Your task to perform on an android device: Clear the shopping cart on newegg. Search for razer huntsman on newegg, select the first entry, add it to the cart, then select checkout. Image 0: 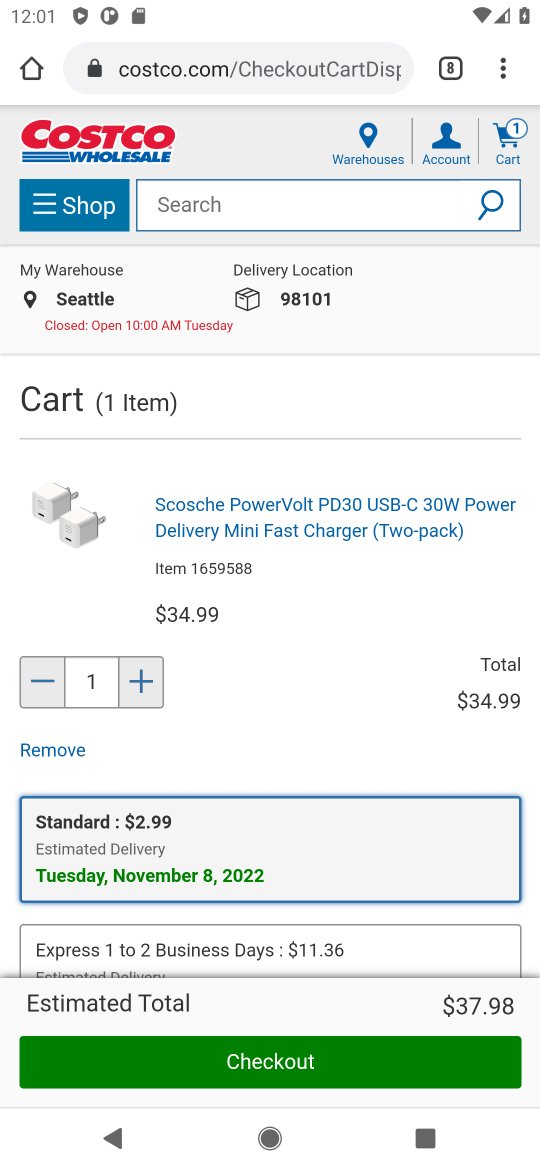
Step 0: press home button
Your task to perform on an android device: Clear the shopping cart on newegg. Search for razer huntsman on newegg, select the first entry, add it to the cart, then select checkout. Image 1: 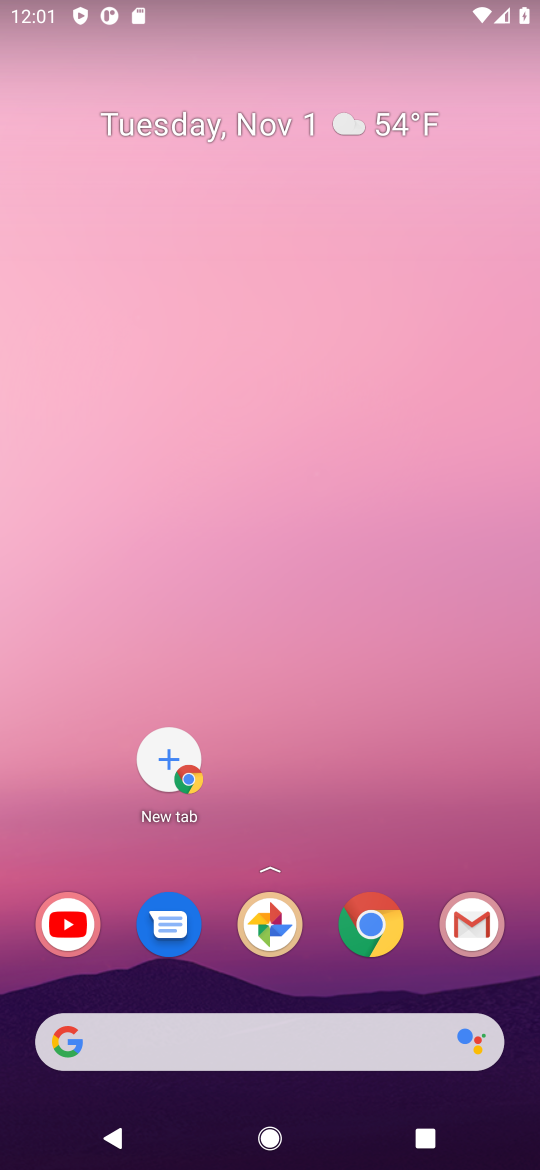
Step 1: click (380, 936)
Your task to perform on an android device: Clear the shopping cart on newegg. Search for razer huntsman on newegg, select the first entry, add it to the cart, then select checkout. Image 2: 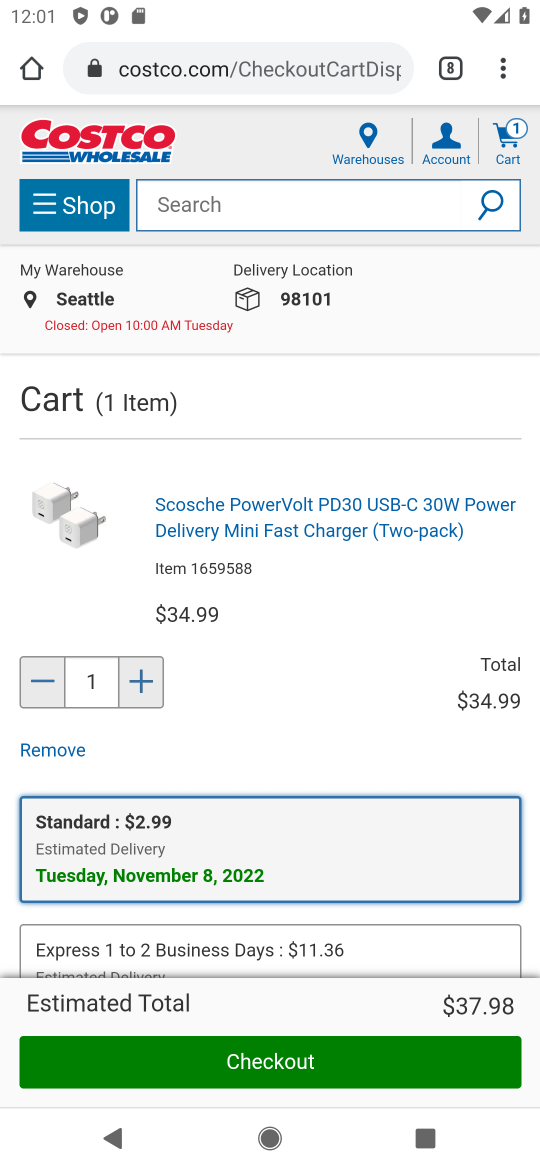
Step 2: click (167, 48)
Your task to perform on an android device: Clear the shopping cart on newegg. Search for razer huntsman on newegg, select the first entry, add it to the cart, then select checkout. Image 3: 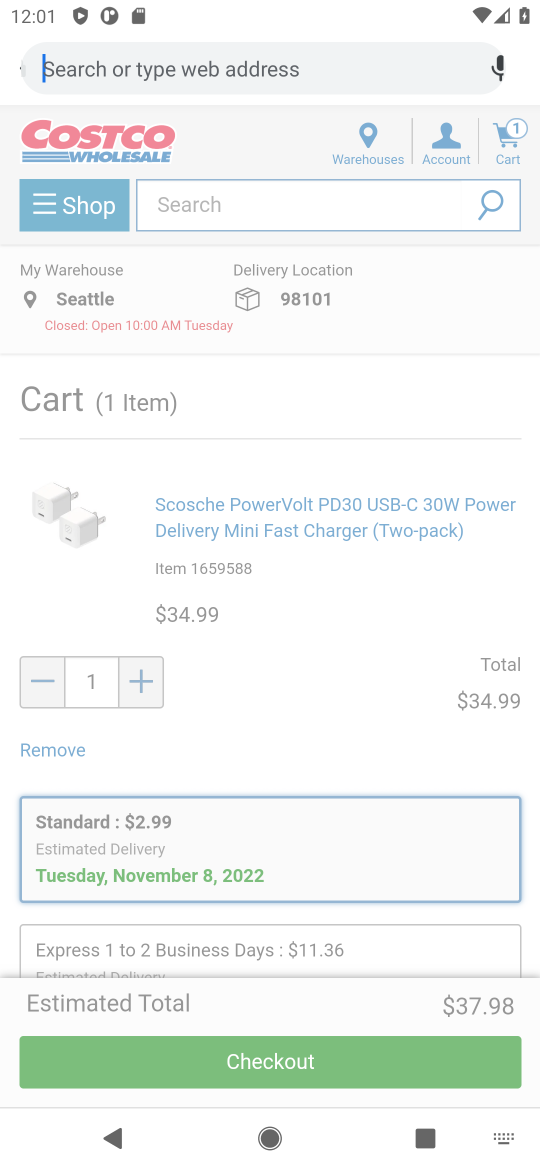
Step 3: click (168, 59)
Your task to perform on an android device: Clear the shopping cart on newegg. Search for razer huntsman on newegg, select the first entry, add it to the cart, then select checkout. Image 4: 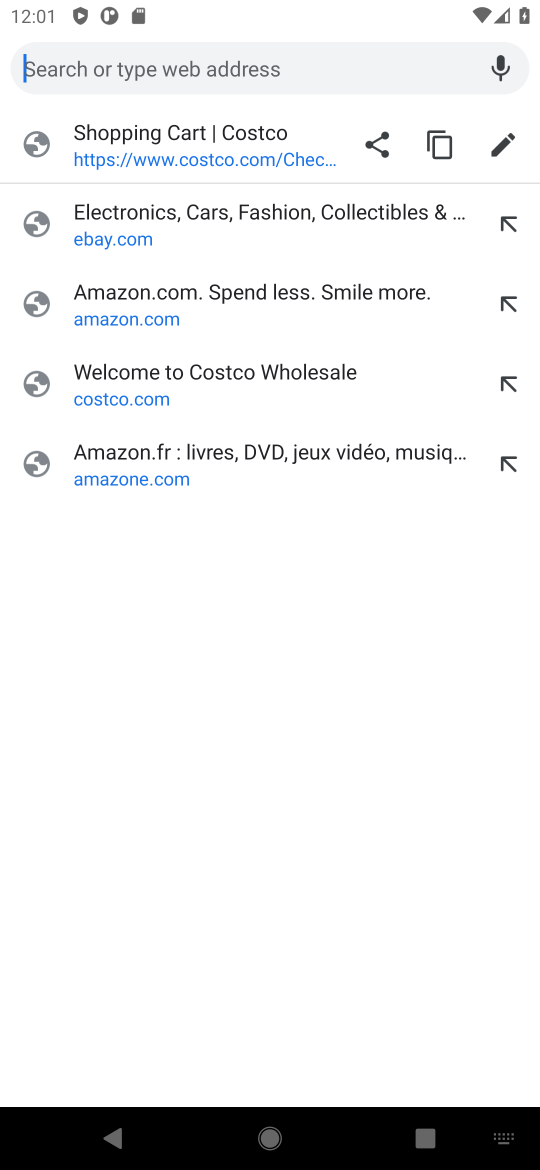
Step 4: type "newegg"
Your task to perform on an android device: Clear the shopping cart on newegg. Search for razer huntsman on newegg, select the first entry, add it to the cart, then select checkout. Image 5: 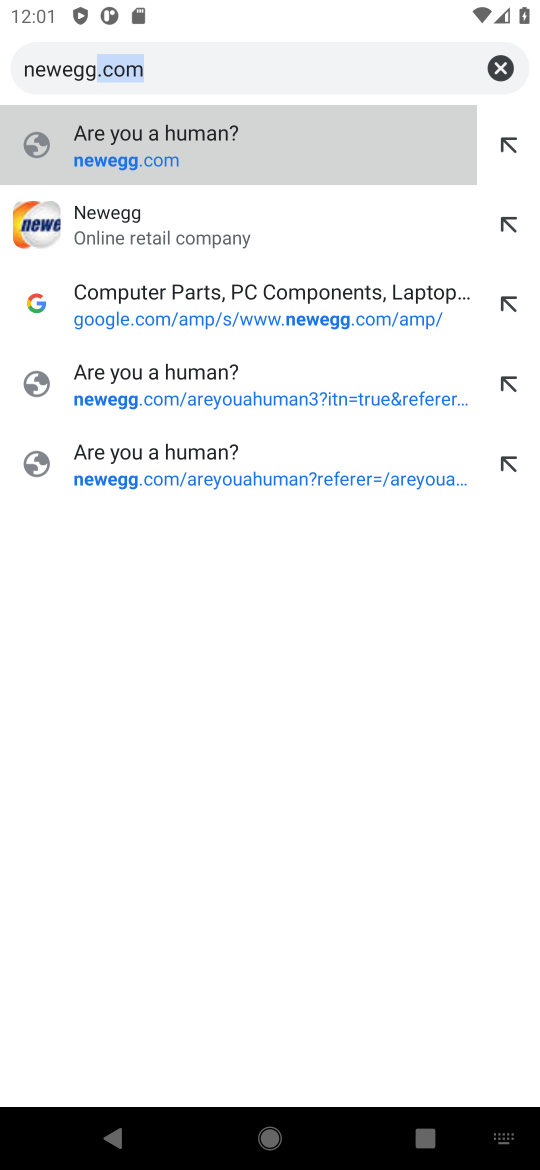
Step 5: click (135, 215)
Your task to perform on an android device: Clear the shopping cart on newegg. Search for razer huntsman on newegg, select the first entry, add it to the cart, then select checkout. Image 6: 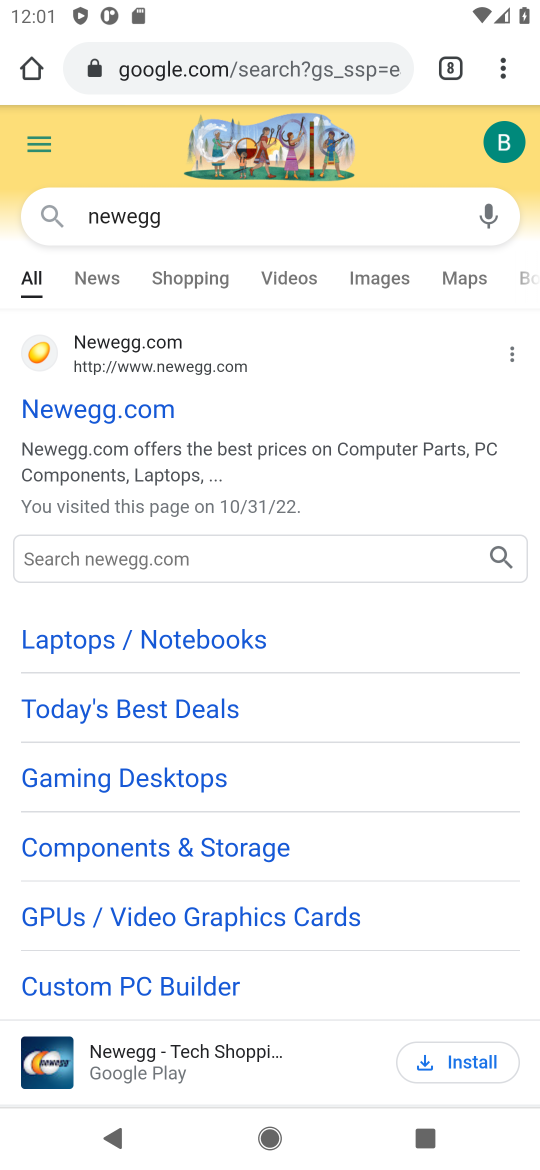
Step 6: drag from (251, 892) to (286, 165)
Your task to perform on an android device: Clear the shopping cart on newegg. Search for razer huntsman on newegg, select the first entry, add it to the cart, then select checkout. Image 7: 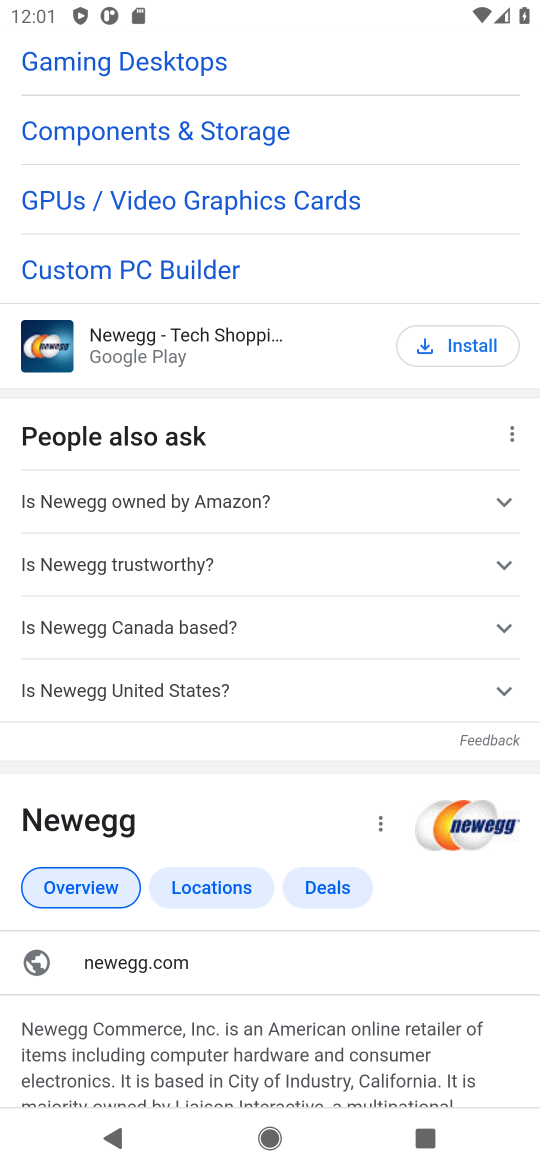
Step 7: click (128, 330)
Your task to perform on an android device: Clear the shopping cart on newegg. Search for razer huntsman on newegg, select the first entry, add it to the cart, then select checkout. Image 8: 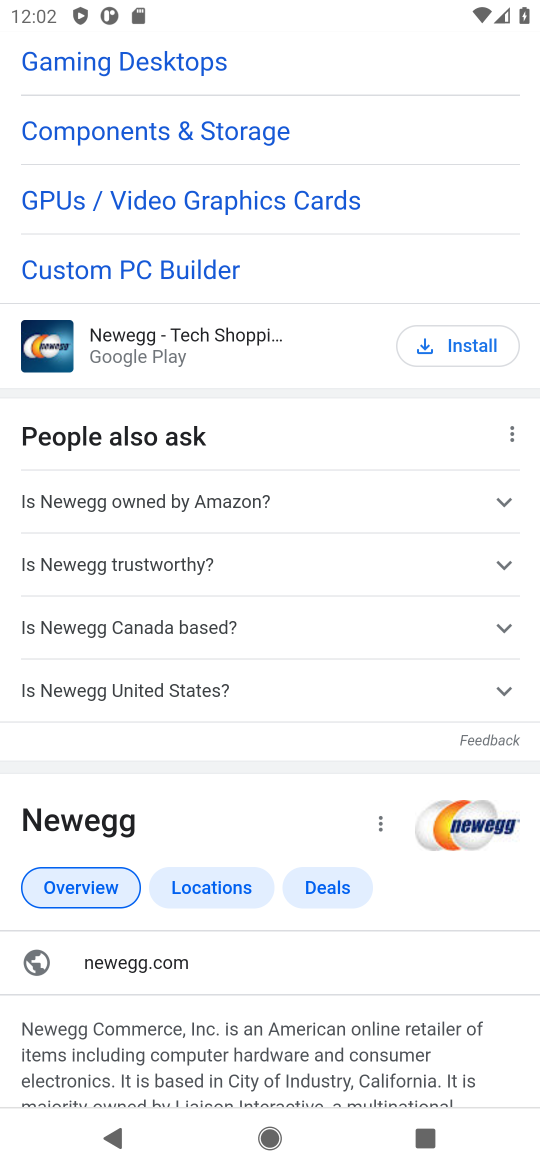
Step 8: drag from (243, 286) to (253, 783)
Your task to perform on an android device: Clear the shopping cart on newegg. Search for razer huntsman on newegg, select the first entry, add it to the cart, then select checkout. Image 9: 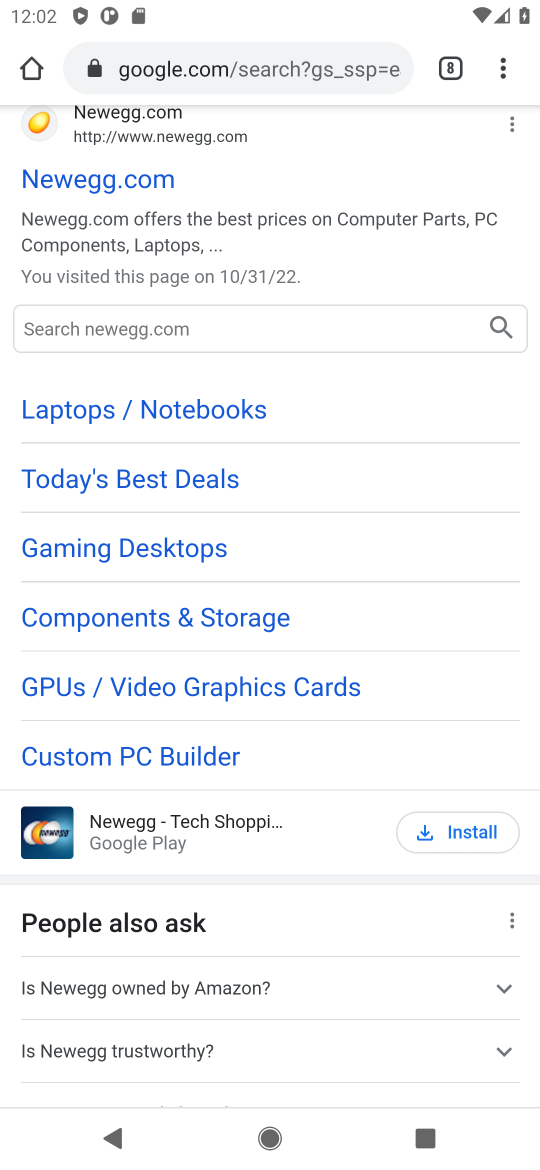
Step 9: click (108, 184)
Your task to perform on an android device: Clear the shopping cart on newegg. Search for razer huntsman on newegg, select the first entry, add it to the cart, then select checkout. Image 10: 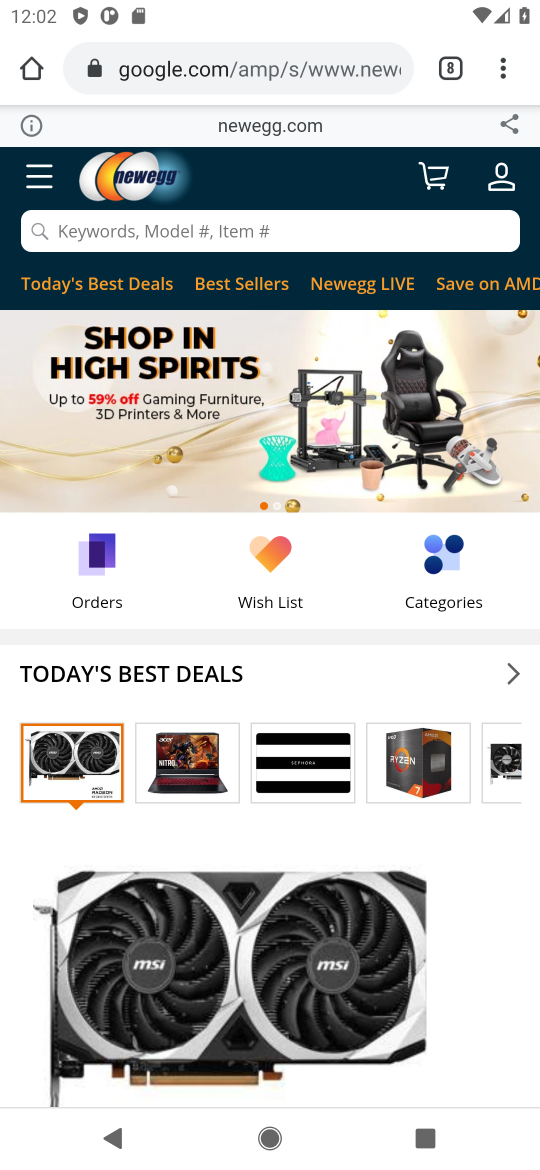
Step 10: click (147, 225)
Your task to perform on an android device: Clear the shopping cart on newegg. Search for razer huntsman on newegg, select the first entry, add it to the cart, then select checkout. Image 11: 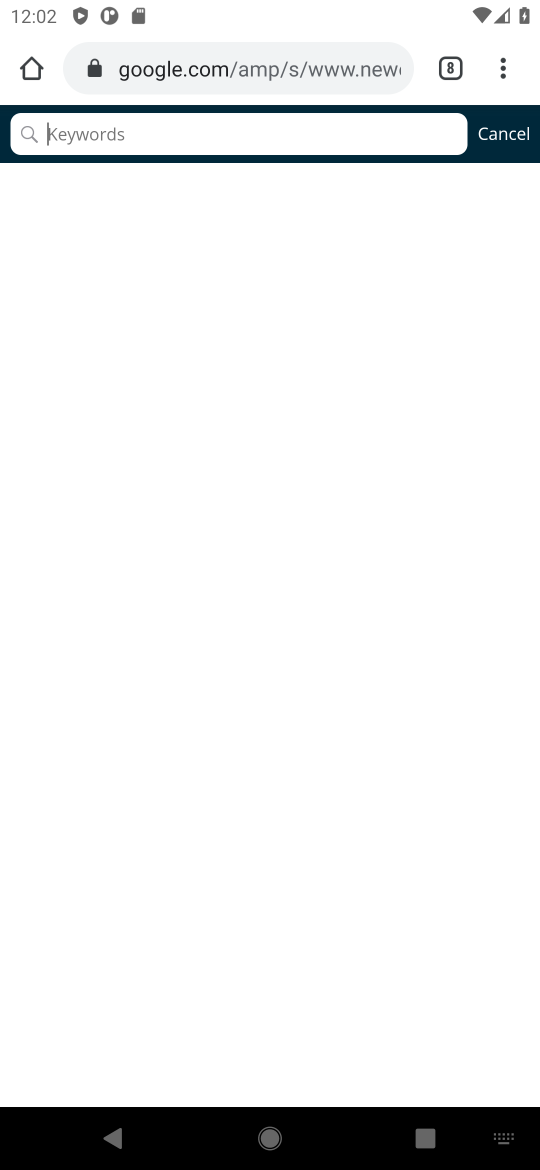
Step 11: type "razer huntsman"
Your task to perform on an android device: Clear the shopping cart on newegg. Search for razer huntsman on newegg, select the first entry, add it to the cart, then select checkout. Image 12: 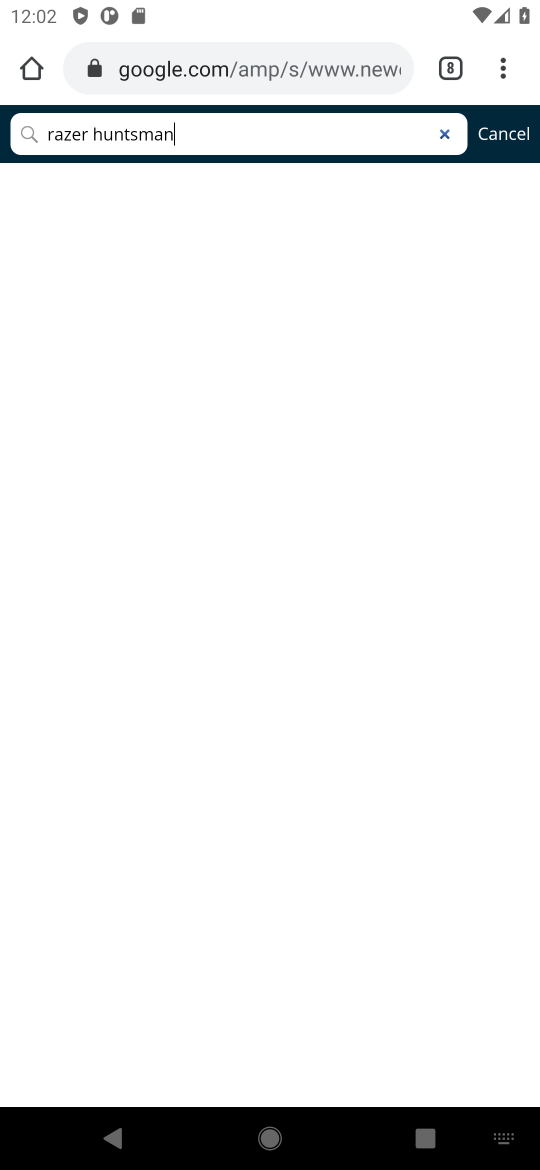
Step 12: type ""
Your task to perform on an android device: Clear the shopping cart on newegg. Search for razer huntsman on newegg, select the first entry, add it to the cart, then select checkout. Image 13: 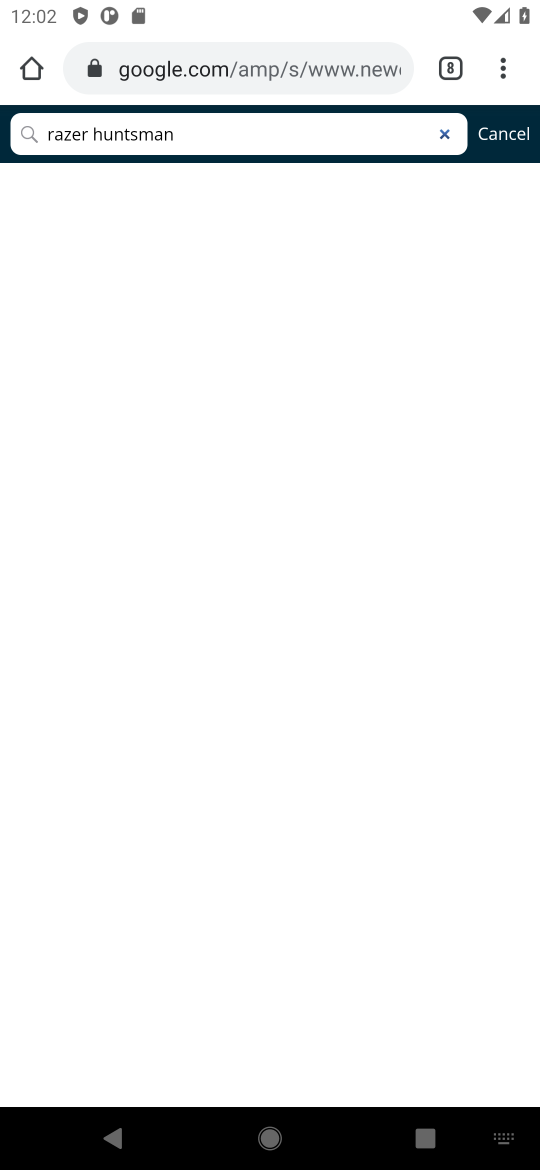
Step 13: click (33, 126)
Your task to perform on an android device: Clear the shopping cart on newegg. Search for razer huntsman on newegg, select the first entry, add it to the cart, then select checkout. Image 14: 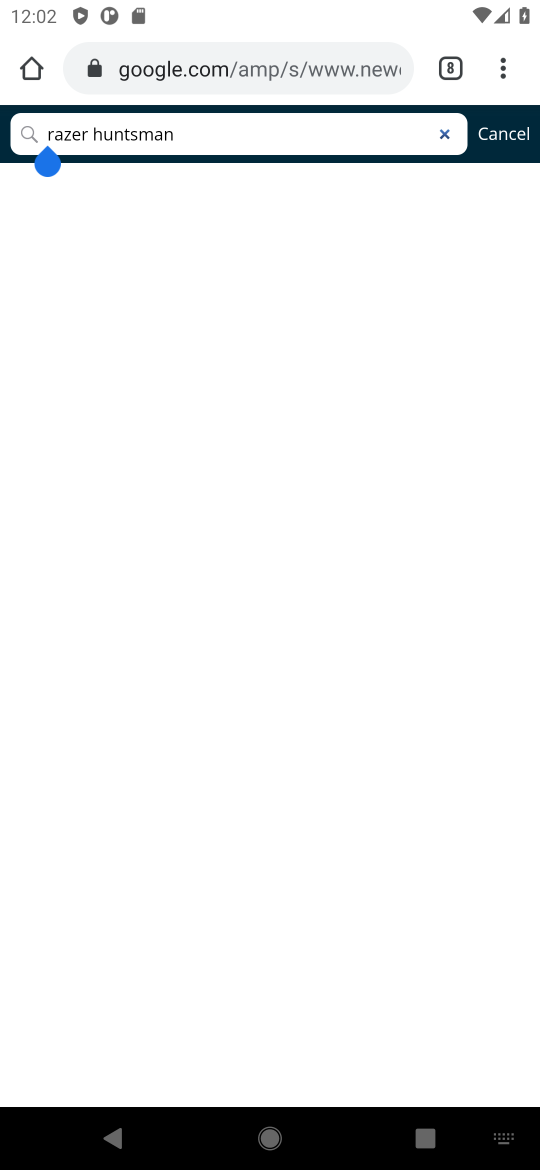
Step 14: click (238, 132)
Your task to perform on an android device: Clear the shopping cart on newegg. Search for razer huntsman on newegg, select the first entry, add it to the cart, then select checkout. Image 15: 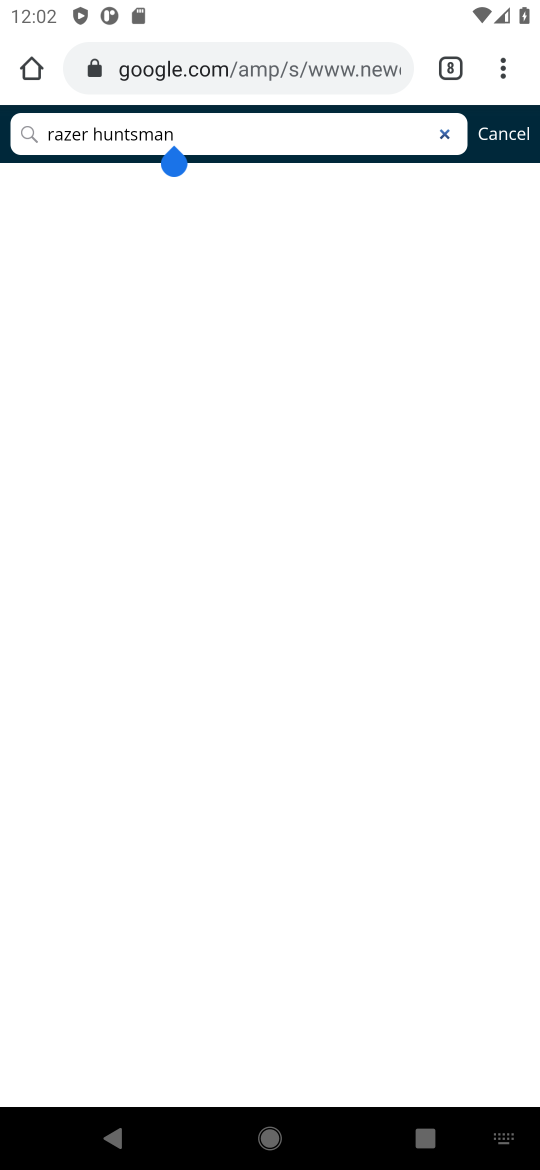
Step 15: press back button
Your task to perform on an android device: Clear the shopping cart on newegg. Search for razer huntsman on newegg, select the first entry, add it to the cart, then select checkout. Image 16: 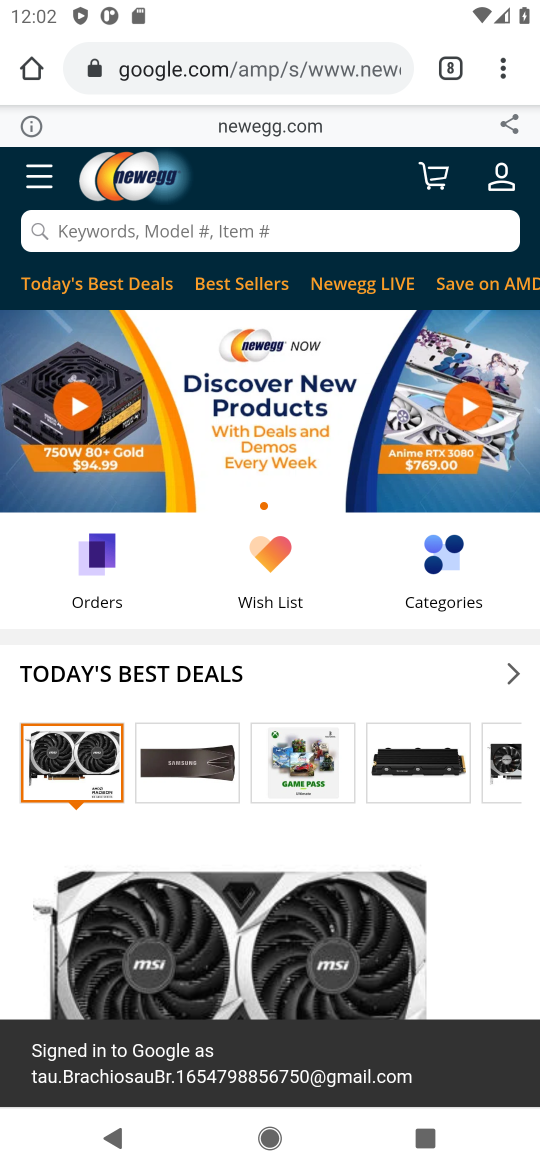
Step 16: click (118, 227)
Your task to perform on an android device: Clear the shopping cart on newegg. Search for razer huntsman on newegg, select the first entry, add it to the cart, then select checkout. Image 17: 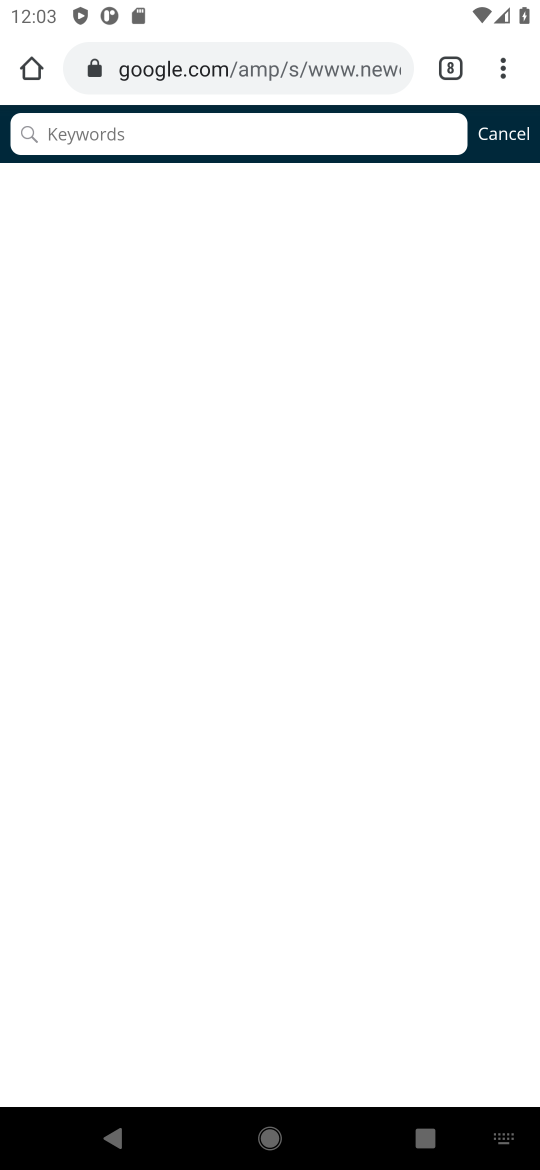
Step 17: type "razer huntsman"
Your task to perform on an android device: Clear the shopping cart on newegg. Search for razer huntsman on newegg, select the first entry, add it to the cart, then select checkout. Image 18: 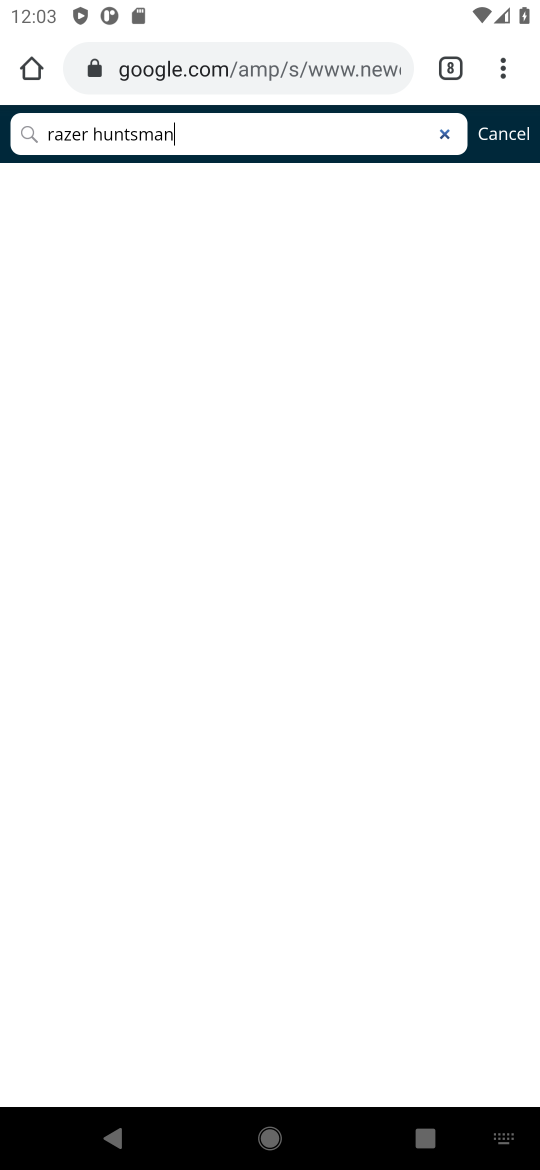
Step 18: type ""
Your task to perform on an android device: Clear the shopping cart on newegg. Search for razer huntsman on newegg, select the first entry, add it to the cart, then select checkout. Image 19: 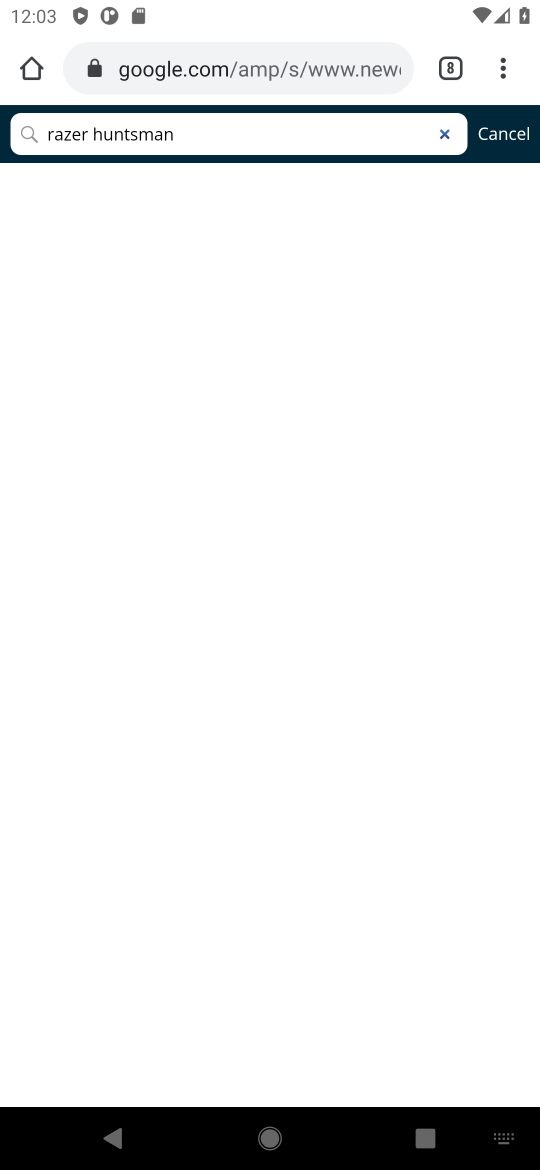
Step 19: click (448, 131)
Your task to perform on an android device: Clear the shopping cart on newegg. Search for razer huntsman on newegg, select the first entry, add it to the cart, then select checkout. Image 20: 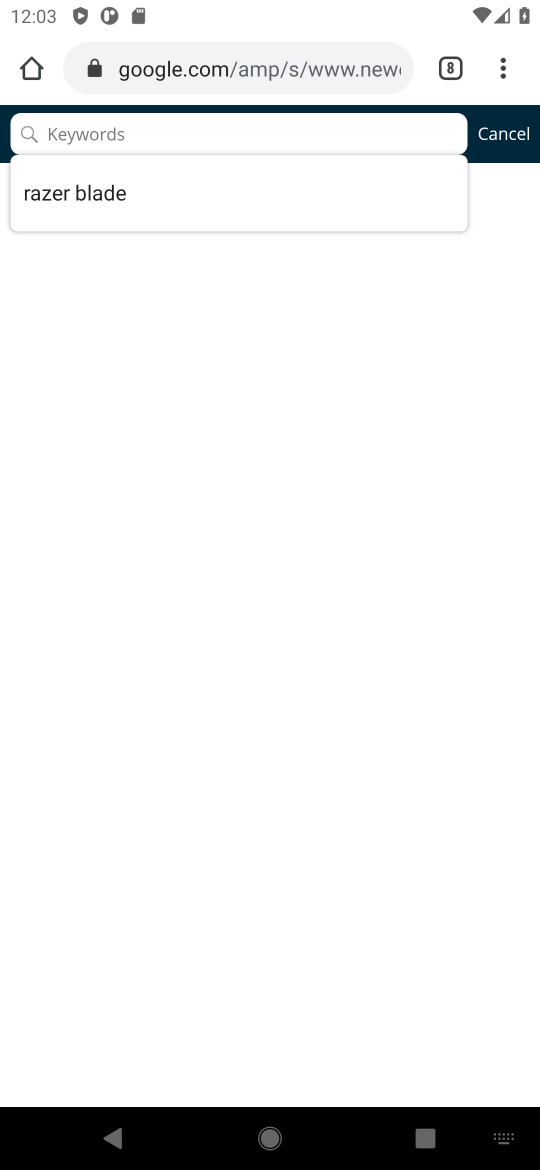
Step 20: press back button
Your task to perform on an android device: Clear the shopping cart on newegg. Search for razer huntsman on newegg, select the first entry, add it to the cart, then select checkout. Image 21: 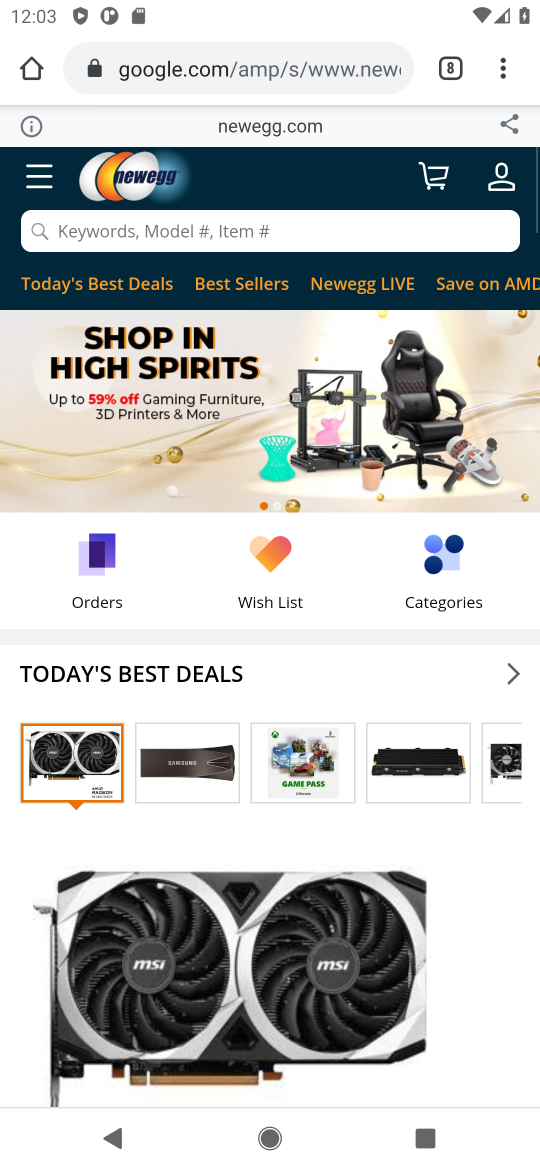
Step 21: drag from (207, 841) to (266, 260)
Your task to perform on an android device: Clear the shopping cart on newegg. Search for razer huntsman on newegg, select the first entry, add it to the cart, then select checkout. Image 22: 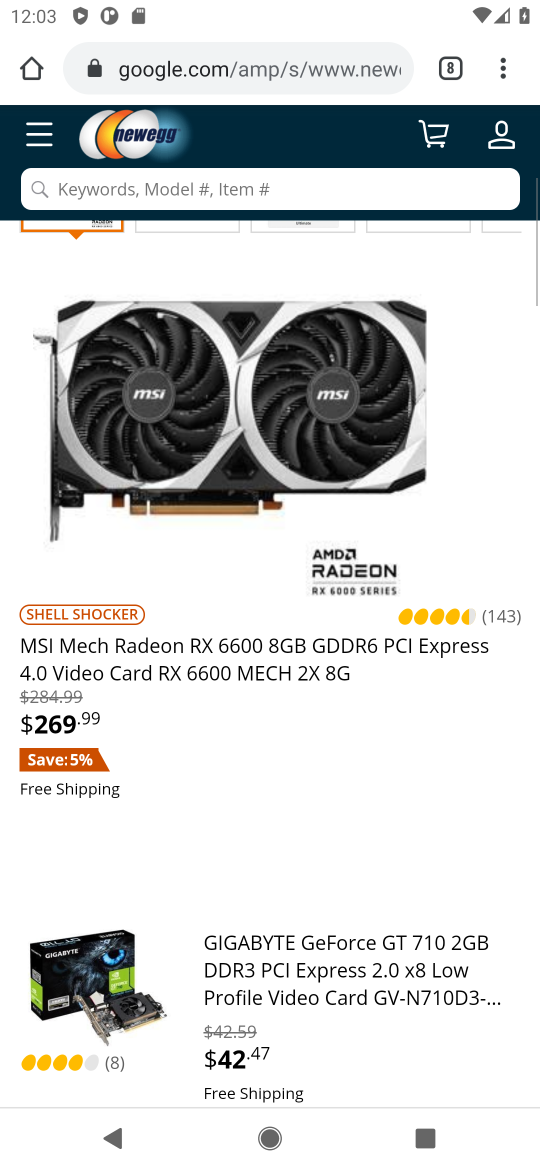
Step 22: drag from (159, 890) to (218, 508)
Your task to perform on an android device: Clear the shopping cart on newegg. Search for razer huntsman on newegg, select the first entry, add it to the cart, then select checkout. Image 23: 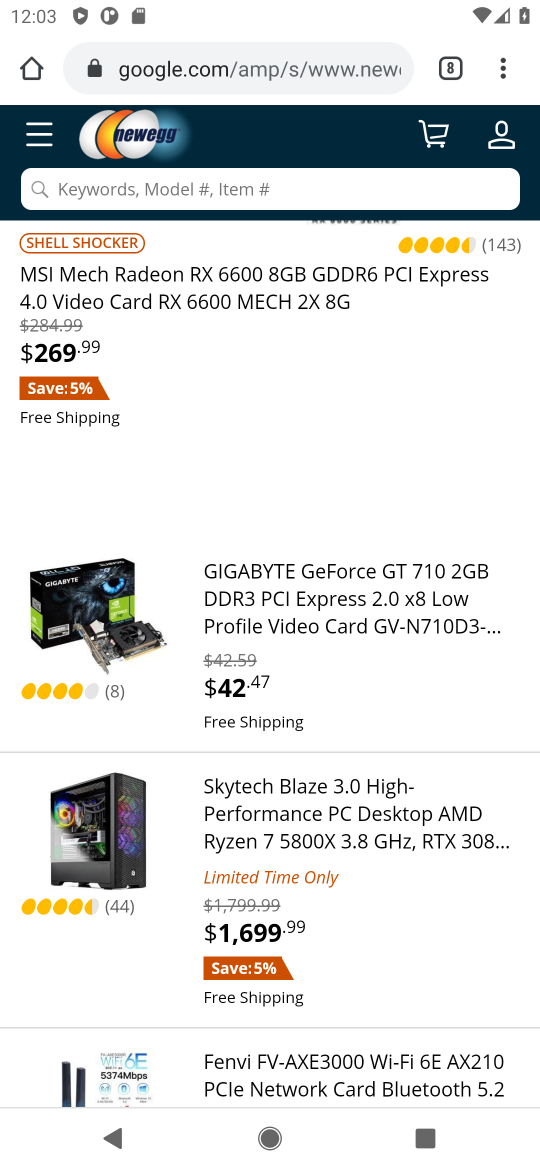
Step 23: drag from (311, 1001) to (331, 665)
Your task to perform on an android device: Clear the shopping cart on newegg. Search for razer huntsman on newegg, select the first entry, add it to the cart, then select checkout. Image 24: 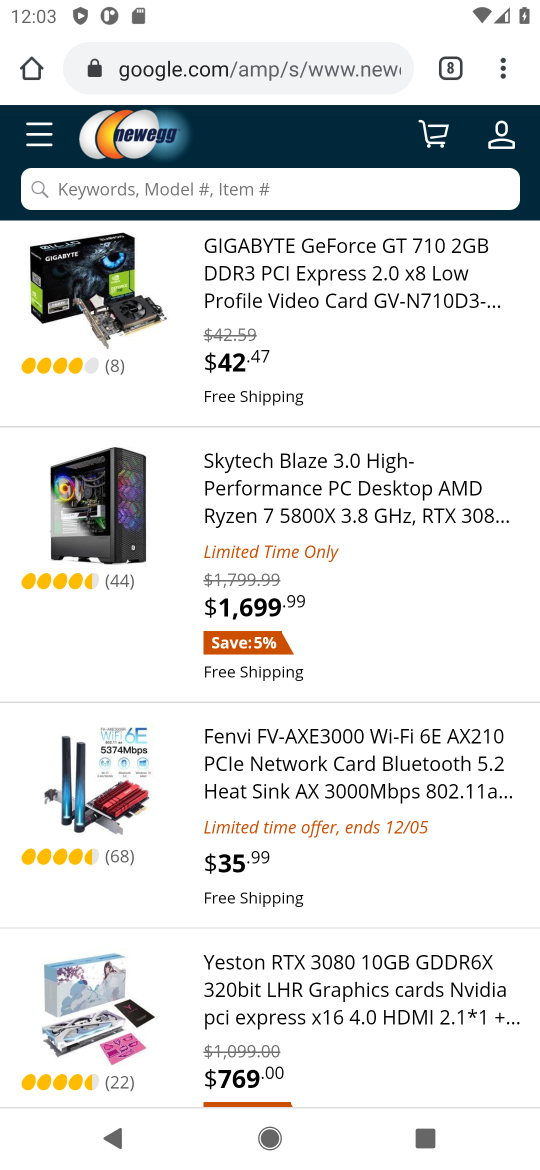
Step 24: press back button
Your task to perform on an android device: Clear the shopping cart on newegg. Search for razer huntsman on newegg, select the first entry, add it to the cart, then select checkout. Image 25: 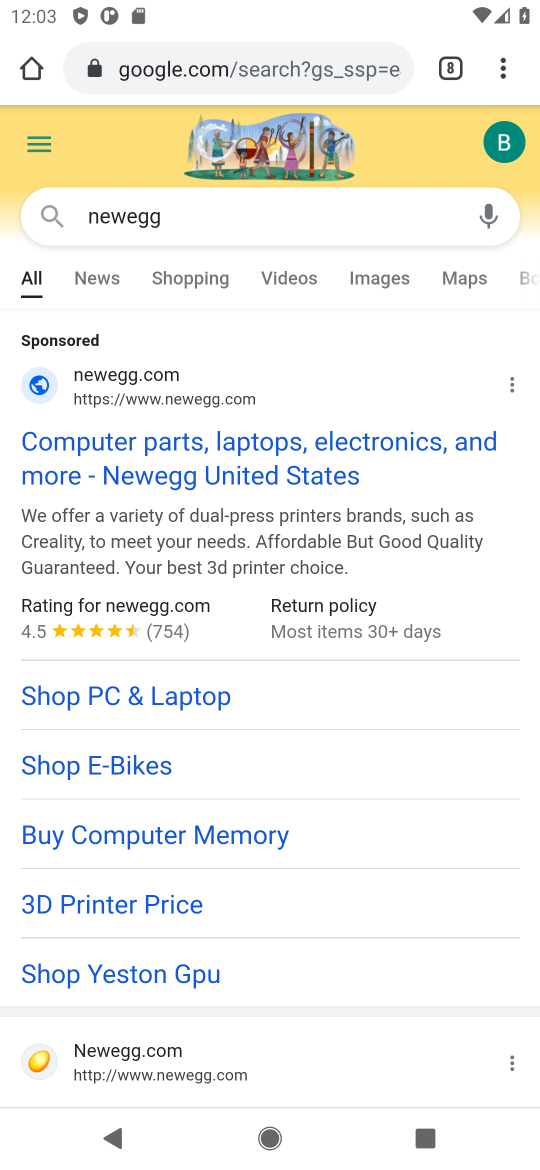
Step 25: drag from (396, 850) to (450, 241)
Your task to perform on an android device: Clear the shopping cart on newegg. Search for razer huntsman on newegg, select the first entry, add it to the cart, then select checkout. Image 26: 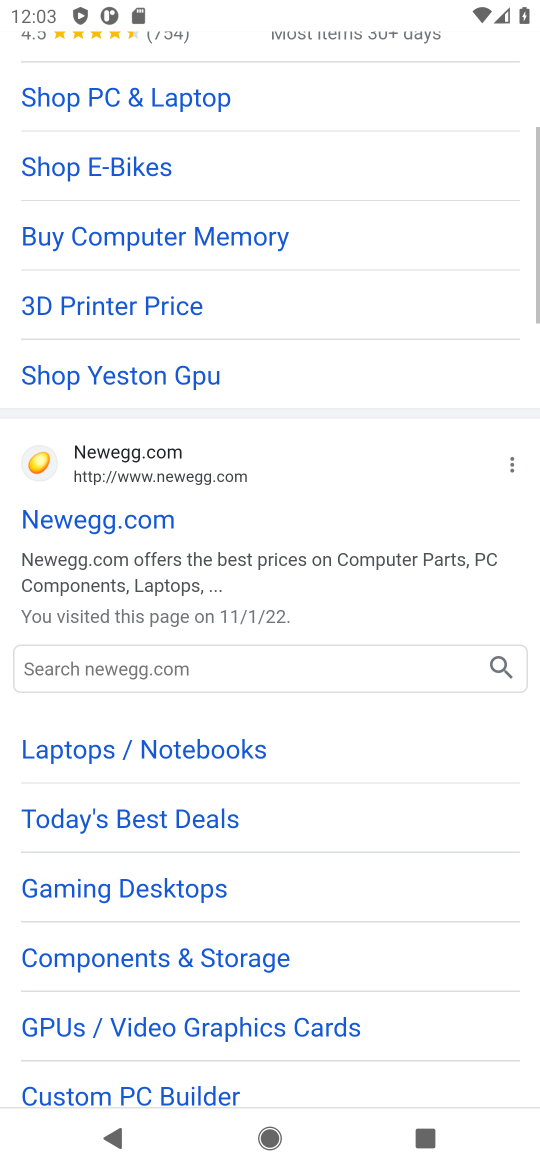
Step 26: drag from (279, 856) to (370, 342)
Your task to perform on an android device: Clear the shopping cart on newegg. Search for razer huntsman on newegg, select the first entry, add it to the cart, then select checkout. Image 27: 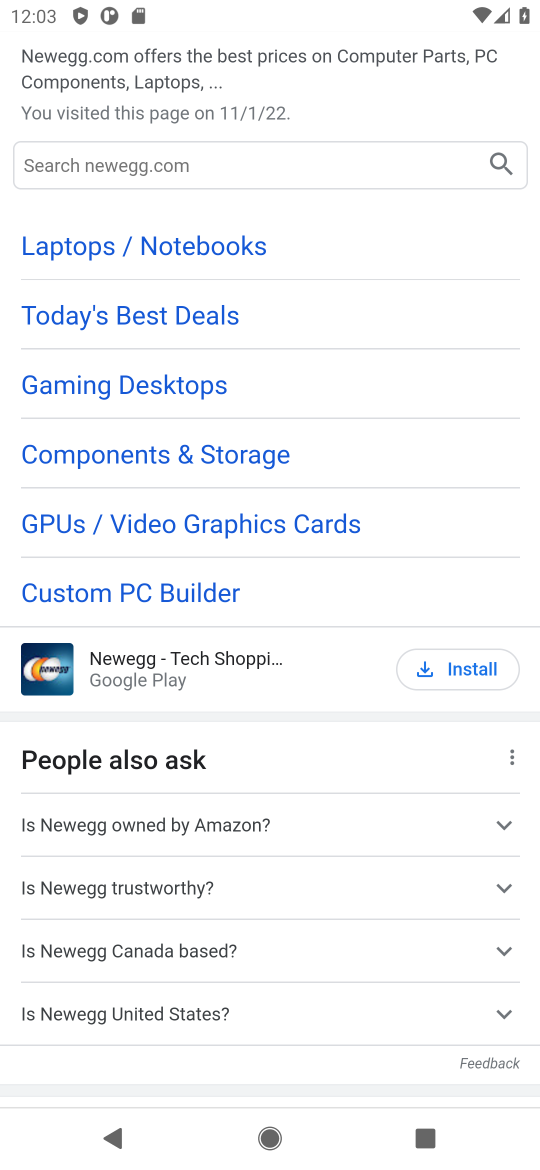
Step 27: click (166, 237)
Your task to perform on an android device: Clear the shopping cart on newegg. Search for razer huntsman on newegg, select the first entry, add it to the cart, then select checkout. Image 28: 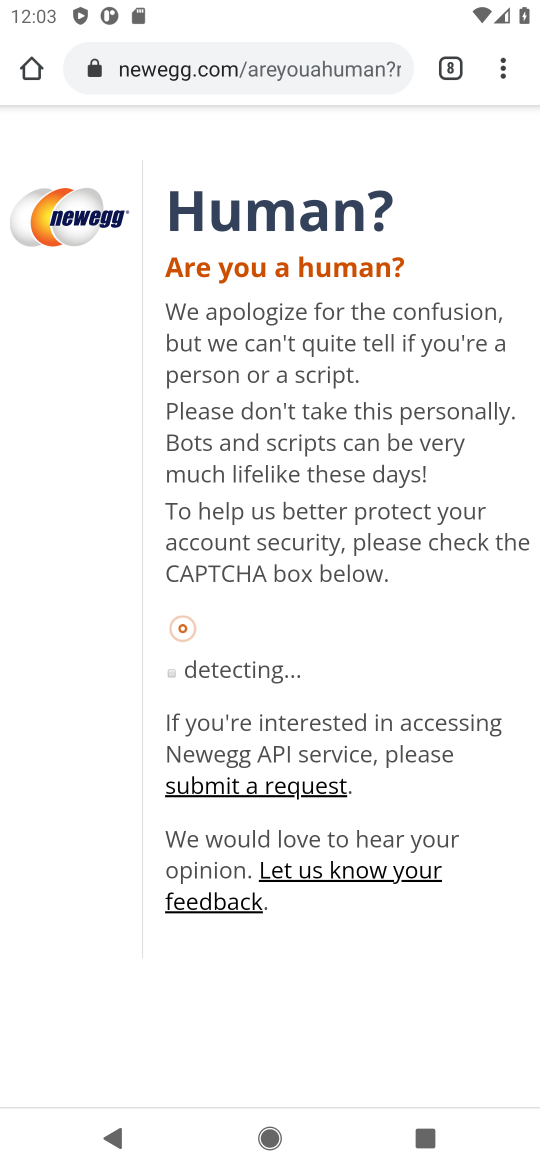
Step 28: press back button
Your task to perform on an android device: Clear the shopping cart on newegg. Search for razer huntsman on newegg, select the first entry, add it to the cart, then select checkout. Image 29: 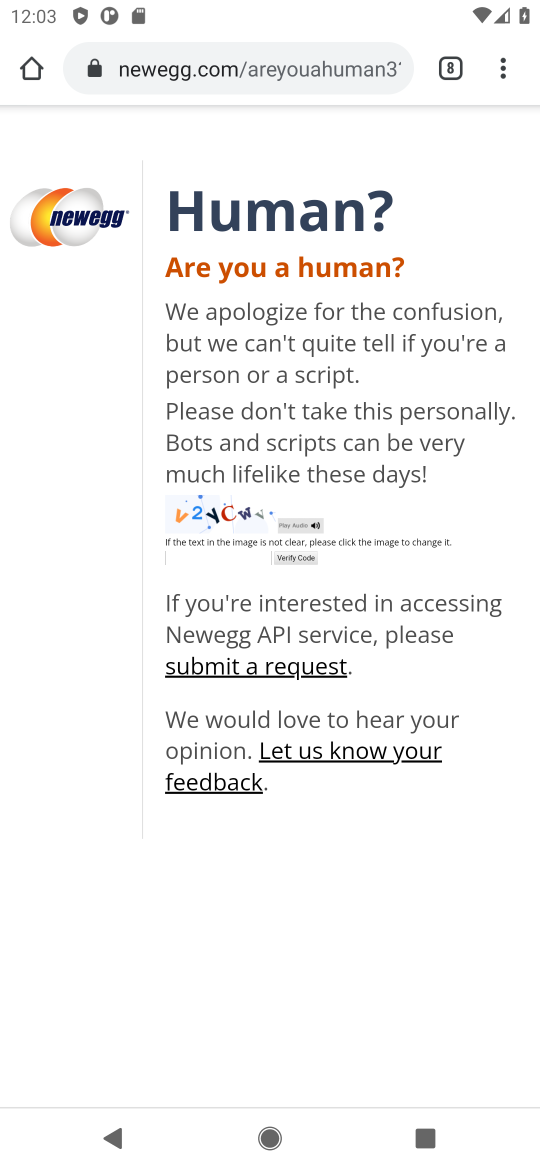
Step 29: drag from (246, 825) to (322, 353)
Your task to perform on an android device: Clear the shopping cart on newegg. Search for razer huntsman on newegg, select the first entry, add it to the cart, then select checkout. Image 30: 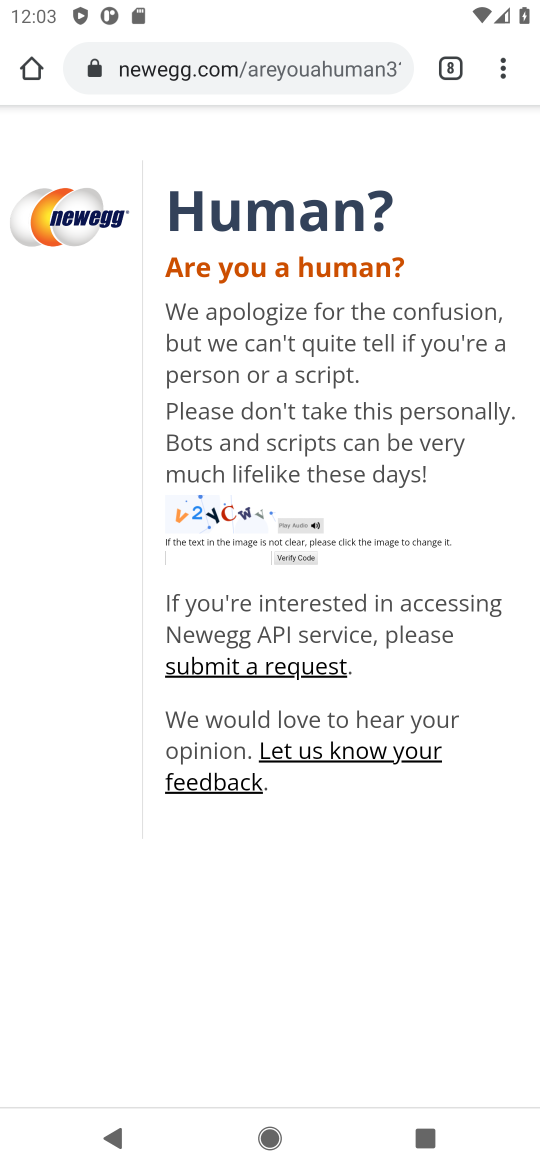
Step 30: press back button
Your task to perform on an android device: Clear the shopping cart on newegg. Search for razer huntsman on newegg, select the first entry, add it to the cart, then select checkout. Image 31: 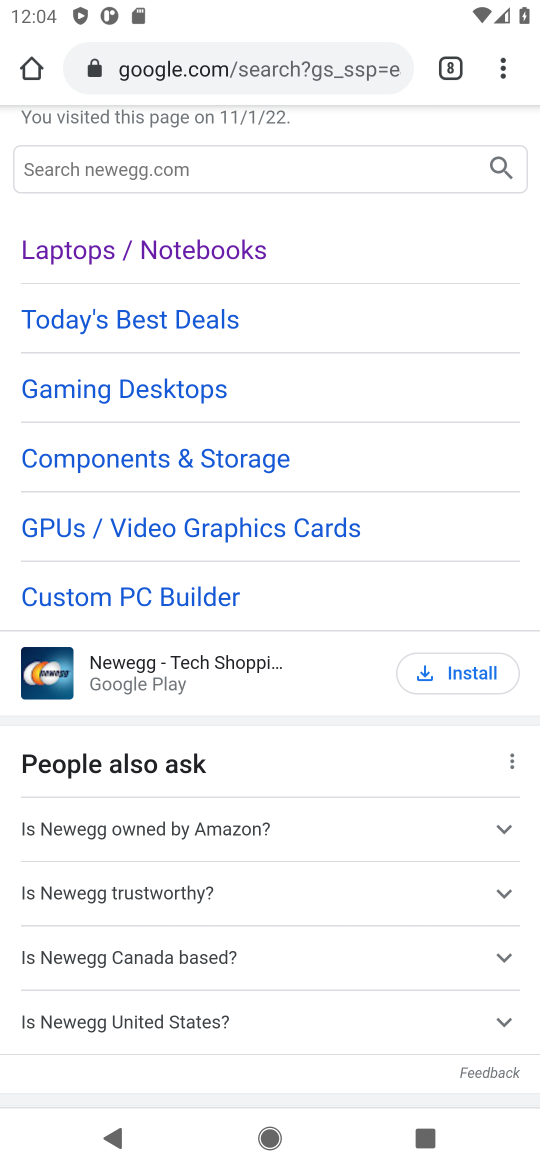
Step 31: click (170, 163)
Your task to perform on an android device: Clear the shopping cart on newegg. Search for razer huntsman on newegg, select the first entry, add it to the cart, then select checkout. Image 32: 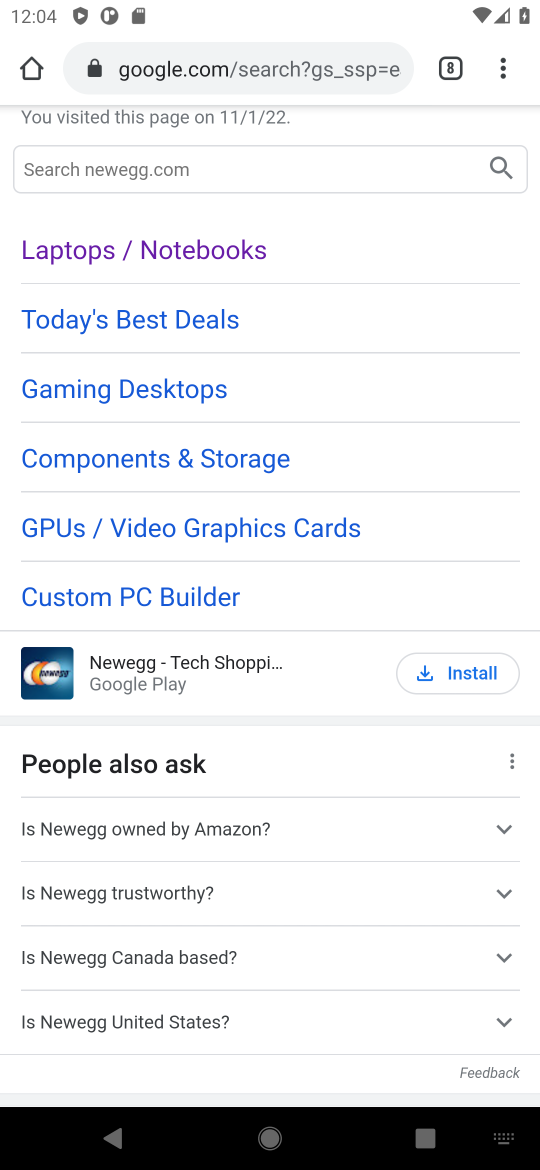
Step 32: type "razer huntsman"
Your task to perform on an android device: Clear the shopping cart on newegg. Search for razer huntsman on newegg, select the first entry, add it to the cart, then select checkout. Image 33: 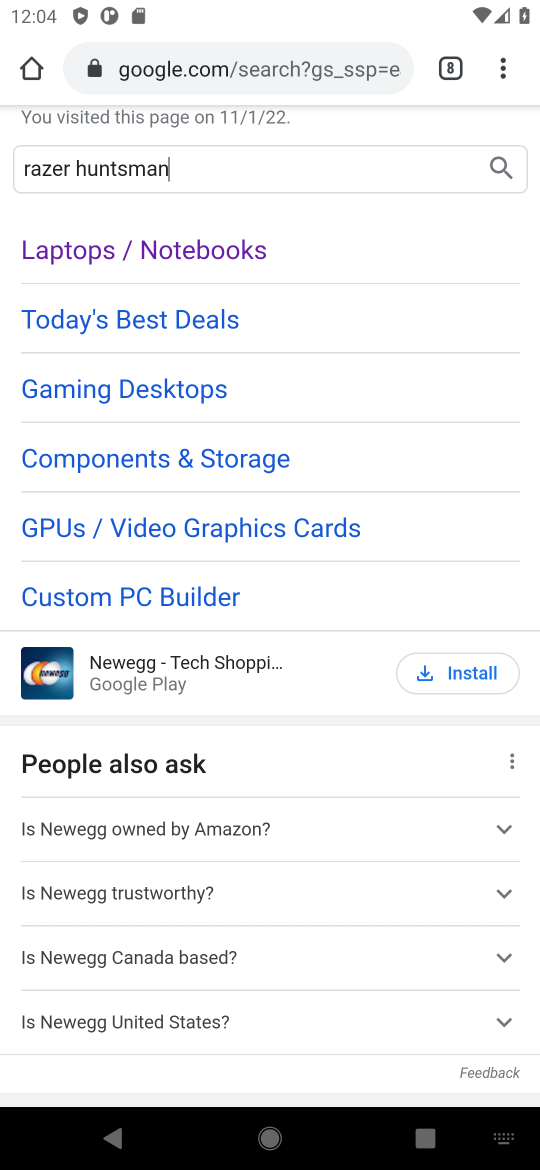
Step 33: type ""
Your task to perform on an android device: Clear the shopping cart on newegg. Search for razer huntsman on newegg, select the first entry, add it to the cart, then select checkout. Image 34: 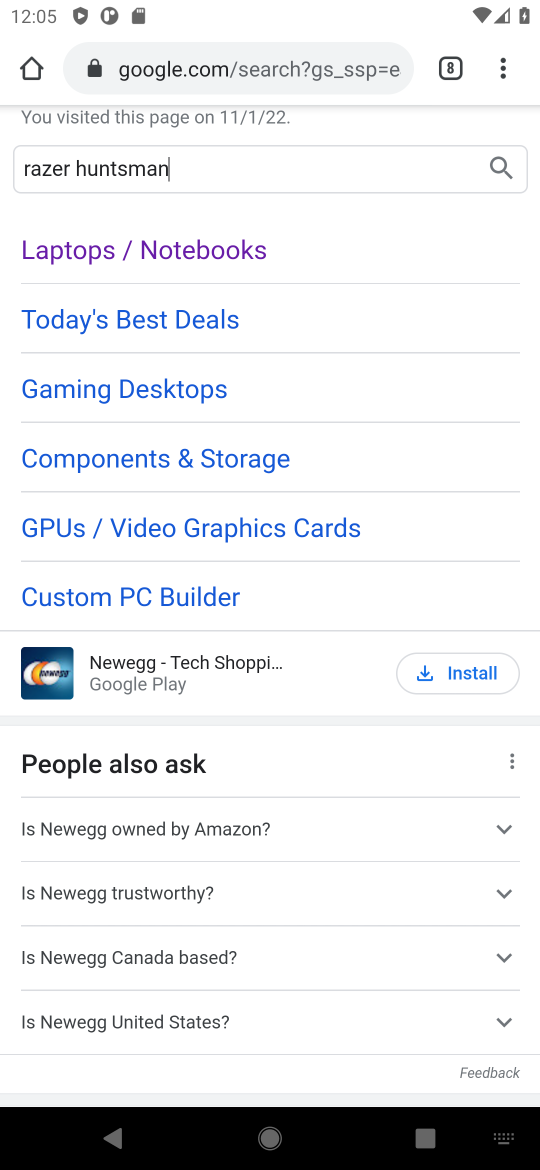
Step 34: click (122, 314)
Your task to perform on an android device: Clear the shopping cart on newegg. Search for razer huntsman on newegg, select the first entry, add it to the cart, then select checkout. Image 35: 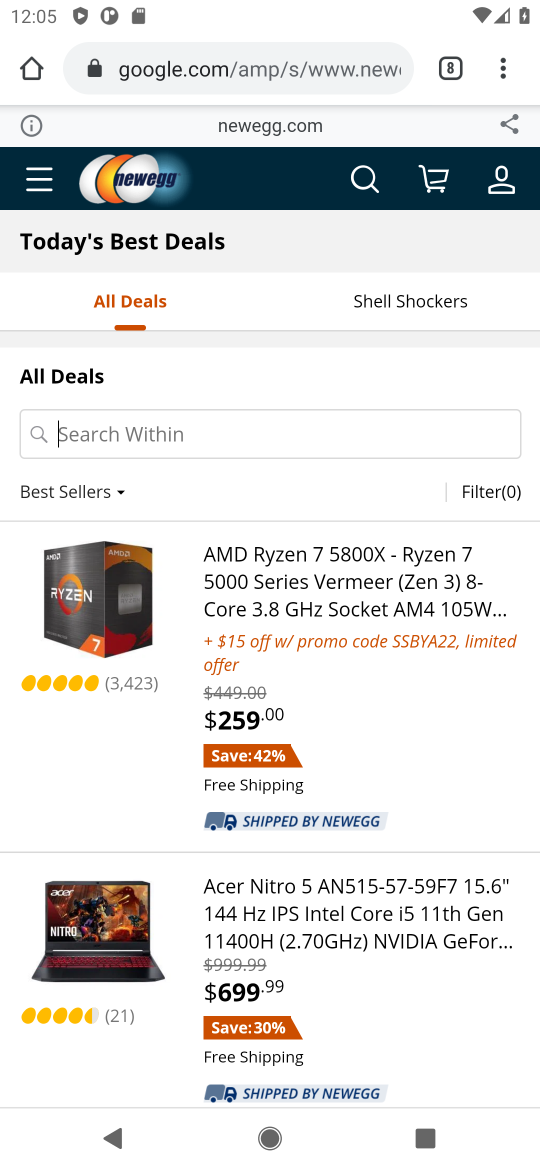
Step 35: drag from (382, 948) to (432, 691)
Your task to perform on an android device: Clear the shopping cart on newegg. Search for razer huntsman on newegg, select the first entry, add it to the cart, then select checkout. Image 36: 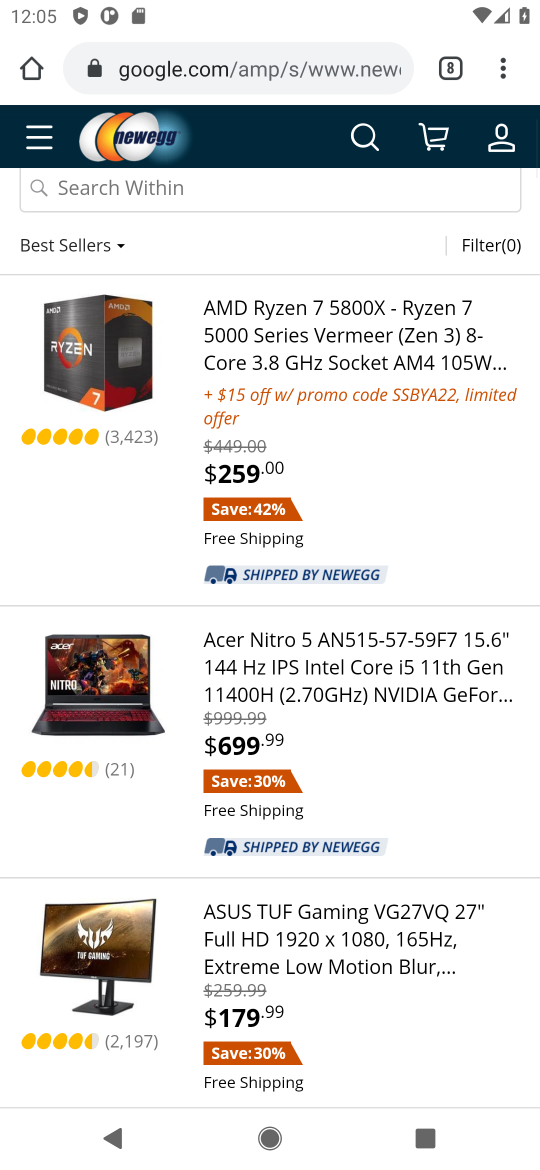
Step 36: click (318, 675)
Your task to perform on an android device: Clear the shopping cart on newegg. Search for razer huntsman on newegg, select the first entry, add it to the cart, then select checkout. Image 37: 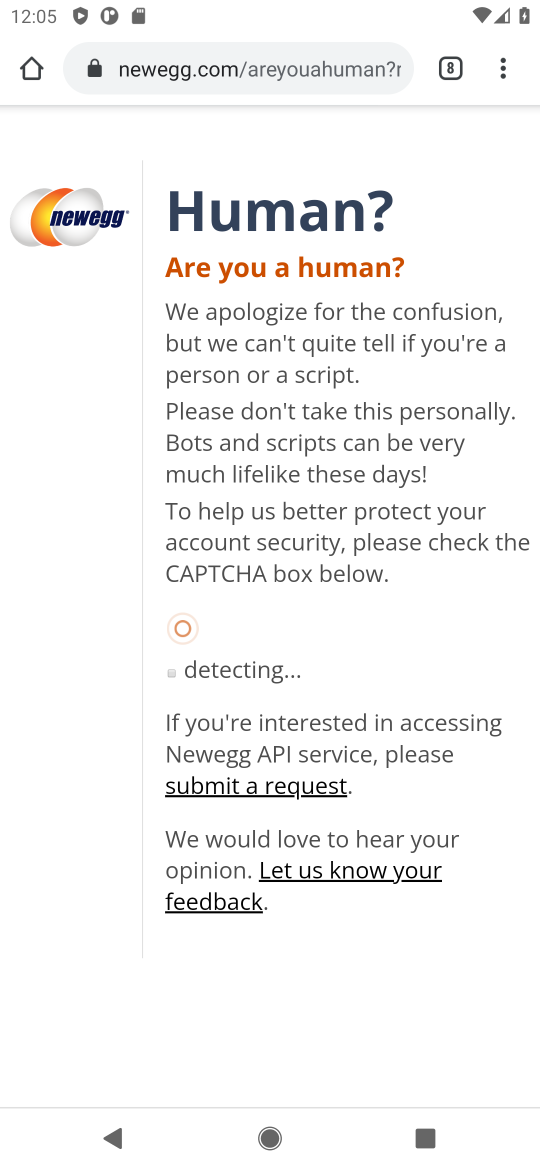
Step 37: press back button
Your task to perform on an android device: Clear the shopping cart on newegg. Search for razer huntsman on newegg, select the first entry, add it to the cart, then select checkout. Image 38: 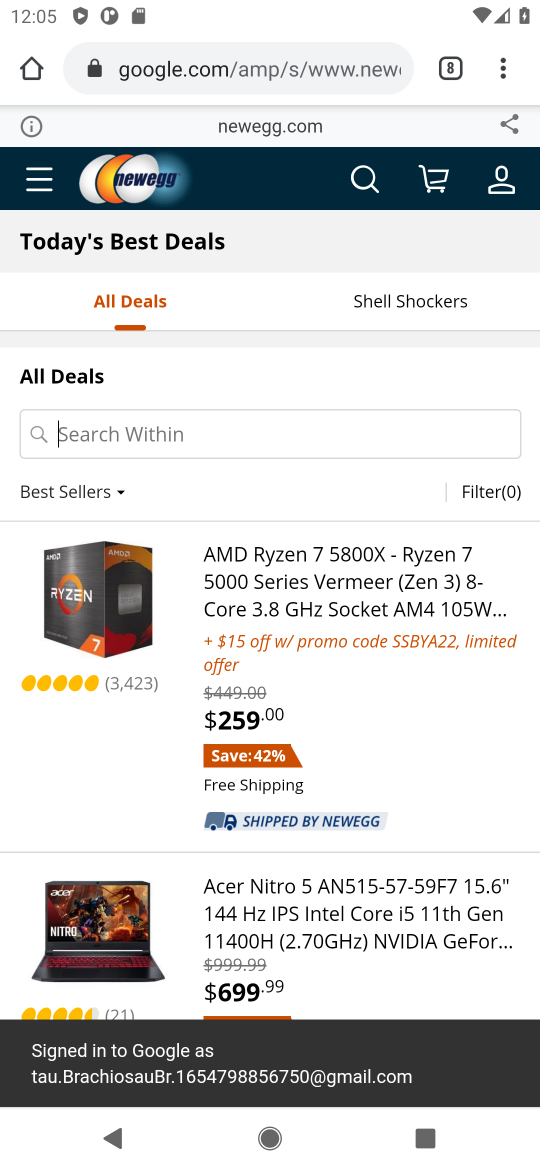
Step 38: drag from (268, 879) to (342, 420)
Your task to perform on an android device: Clear the shopping cart on newegg. Search for razer huntsman on newegg, select the first entry, add it to the cart, then select checkout. Image 39: 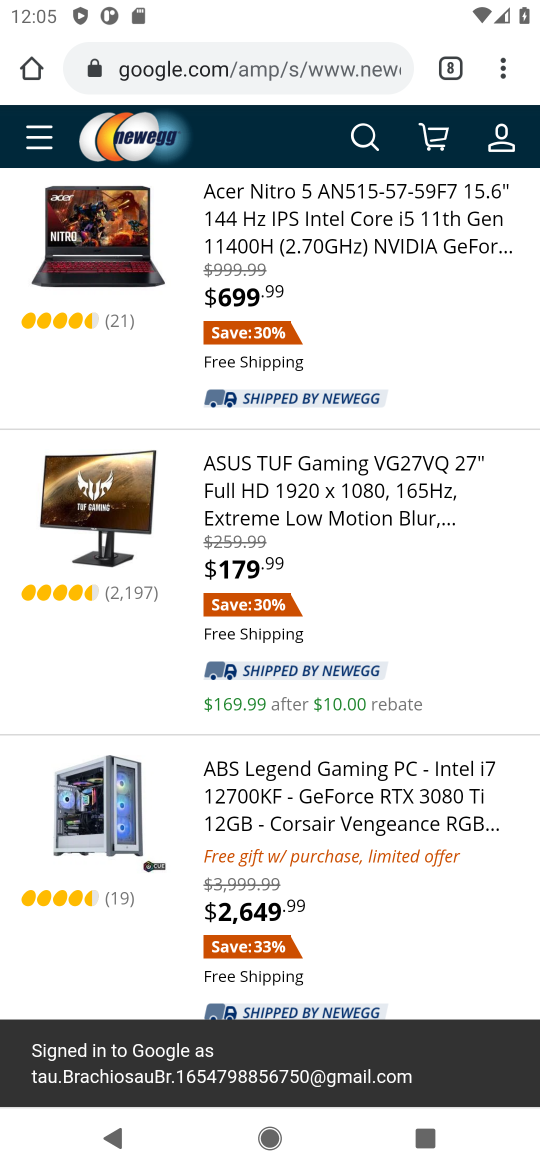
Step 39: click (315, 491)
Your task to perform on an android device: Clear the shopping cart on newegg. Search for razer huntsman on newegg, select the first entry, add it to the cart, then select checkout. Image 40: 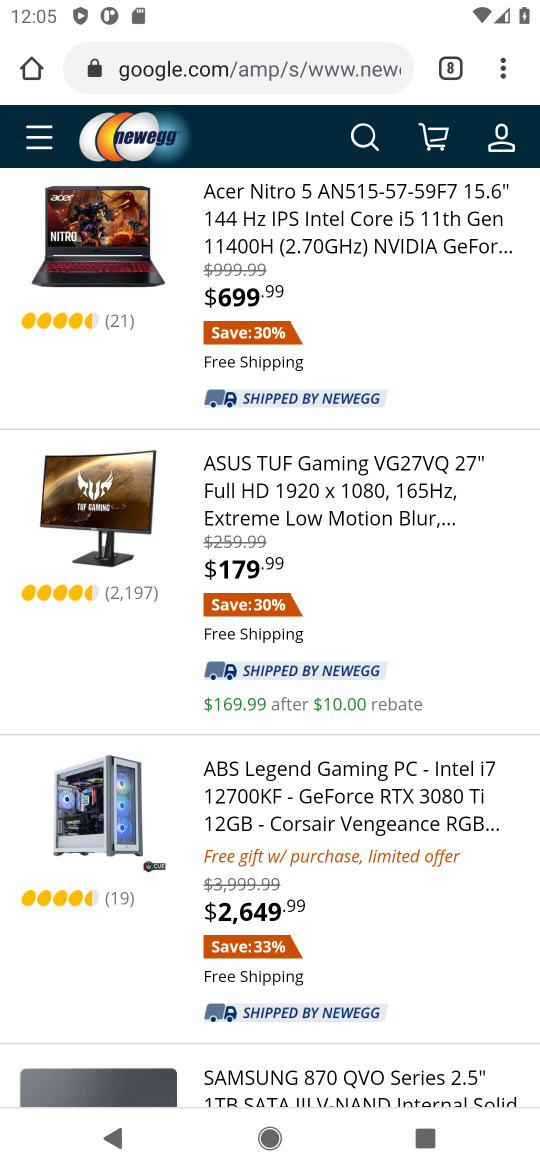
Step 40: click (324, 468)
Your task to perform on an android device: Clear the shopping cart on newegg. Search for razer huntsman on newegg, select the first entry, add it to the cart, then select checkout. Image 41: 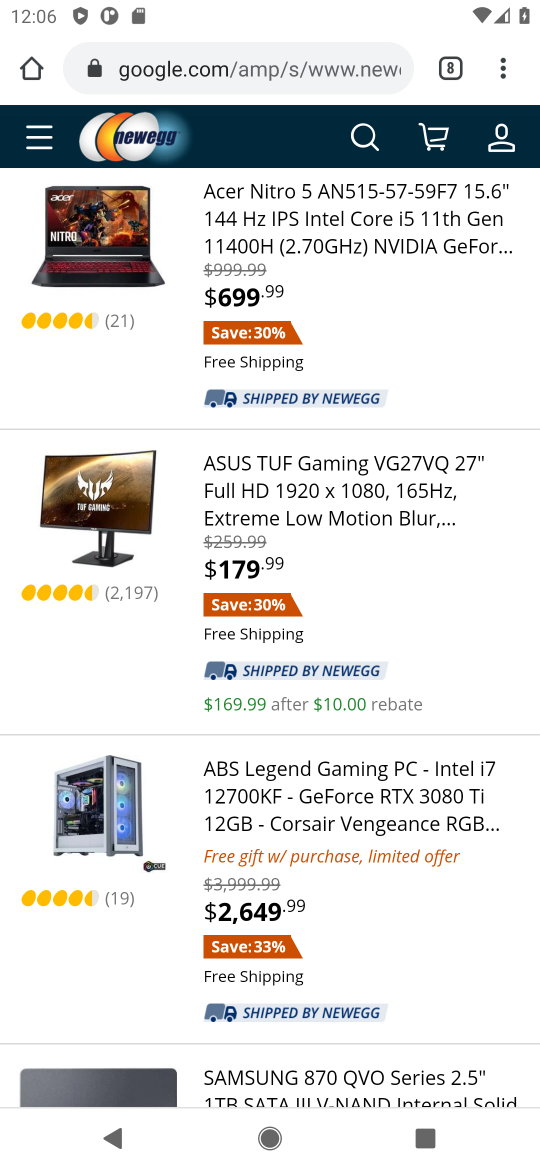
Step 41: click (324, 461)
Your task to perform on an android device: Clear the shopping cart on newegg. Search for razer huntsman on newegg, select the first entry, add it to the cart, then select checkout. Image 42: 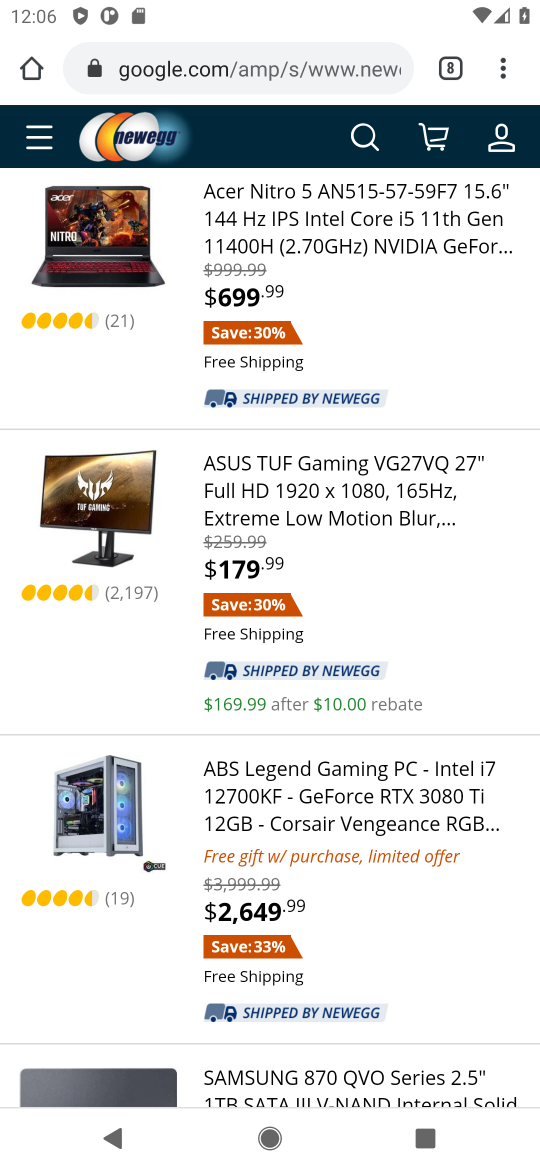
Step 42: click (324, 461)
Your task to perform on an android device: Clear the shopping cart on newegg. Search for razer huntsman on newegg, select the first entry, add it to the cart, then select checkout. Image 43: 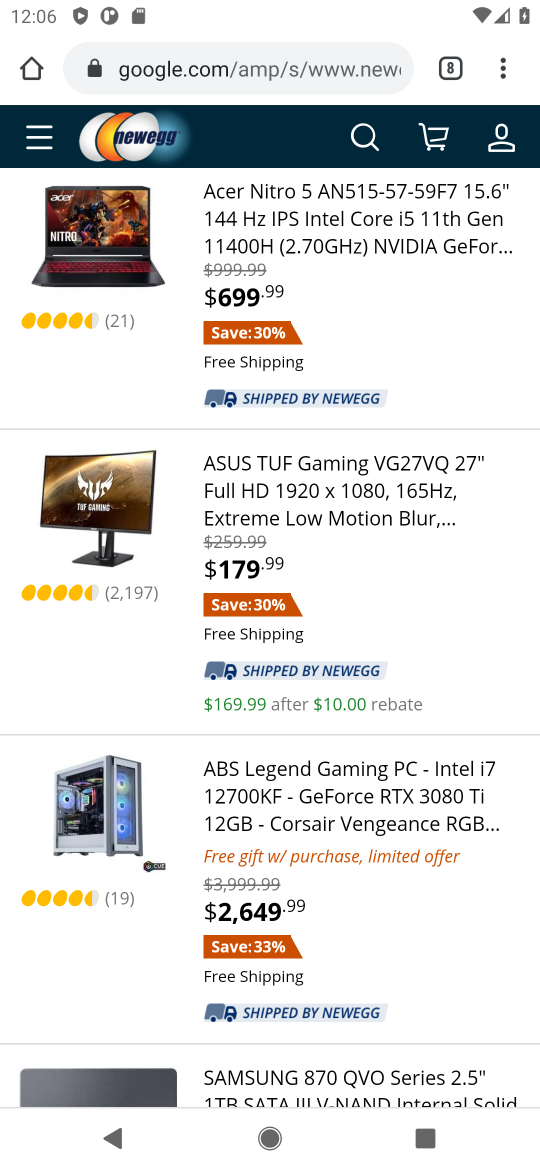
Step 43: click (142, 518)
Your task to perform on an android device: Clear the shopping cart on newegg. Search for razer huntsman on newegg, select the first entry, add it to the cart, then select checkout. Image 44: 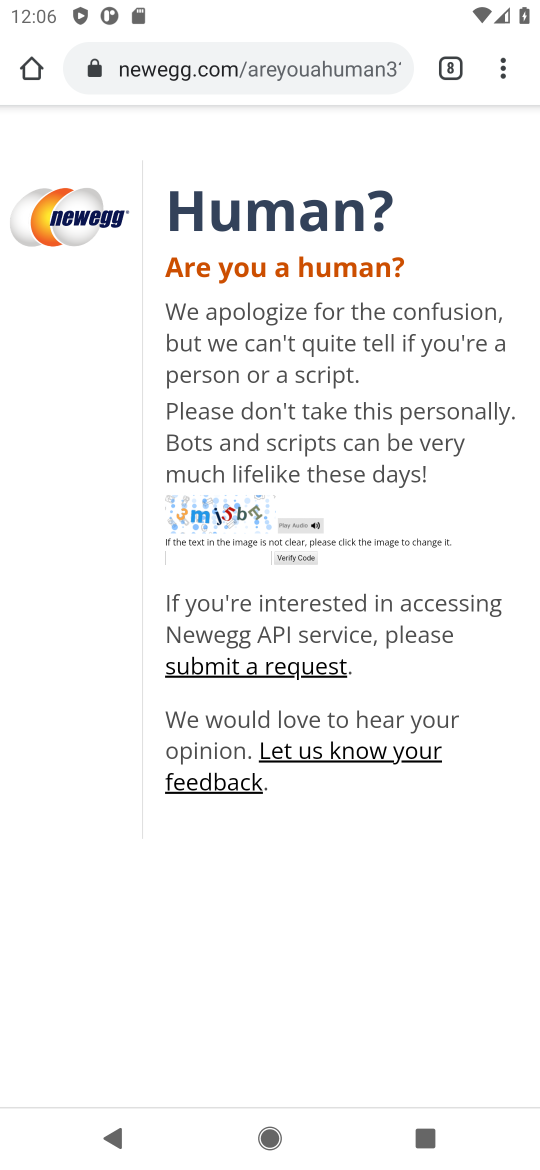
Step 44: press back button
Your task to perform on an android device: Clear the shopping cart on newegg. Search for razer huntsman on newegg, select the first entry, add it to the cart, then select checkout. Image 45: 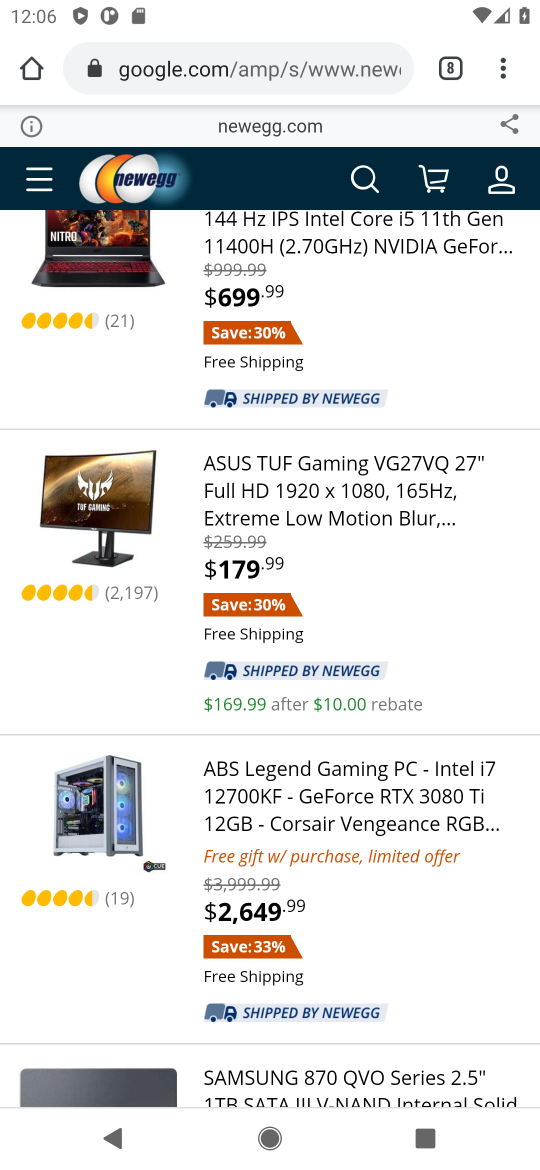
Step 45: click (289, 1073)
Your task to perform on an android device: Clear the shopping cart on newegg. Search for razer huntsman on newegg, select the first entry, add it to the cart, then select checkout. Image 46: 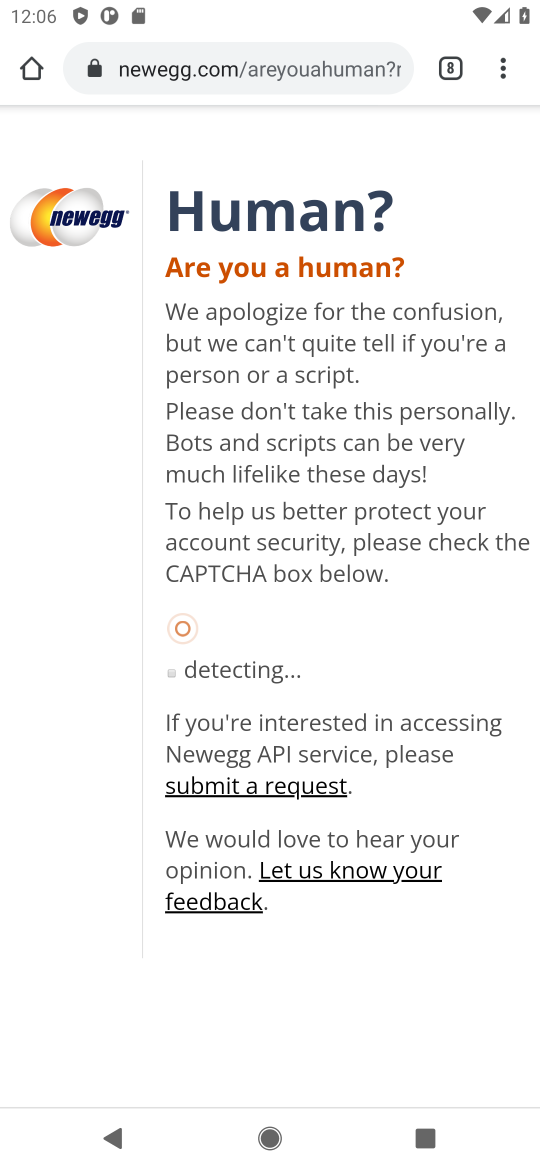
Step 46: task complete